Your task to perform on an android device: Check the news Image 0: 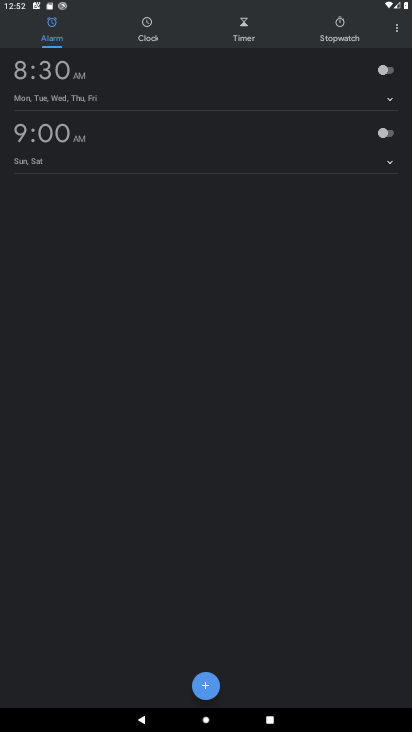
Step 0: press home button
Your task to perform on an android device: Check the news Image 1: 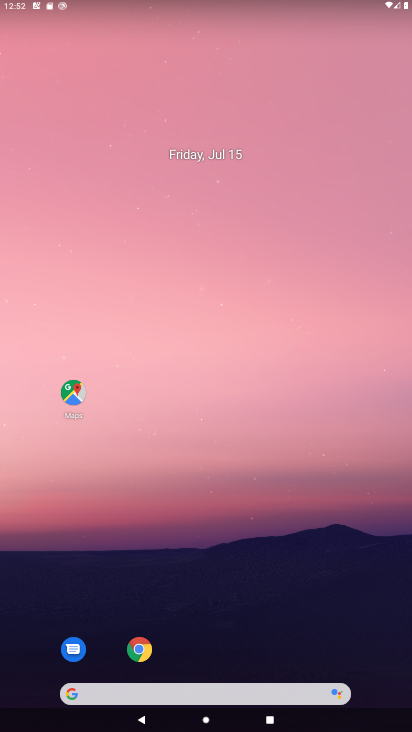
Step 1: drag from (249, 590) to (269, 458)
Your task to perform on an android device: Check the news Image 2: 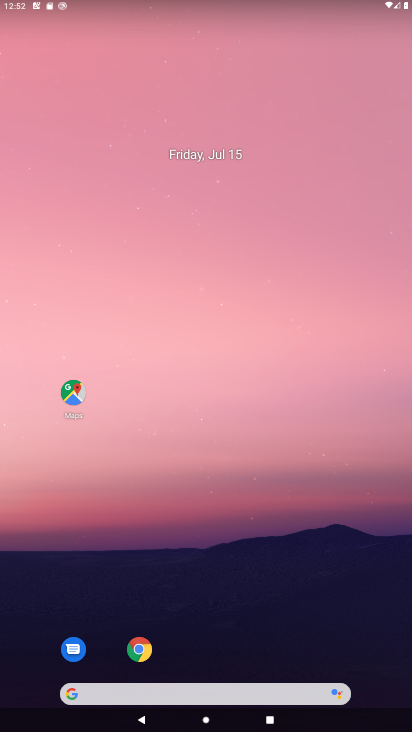
Step 2: drag from (207, 612) to (211, 198)
Your task to perform on an android device: Check the news Image 3: 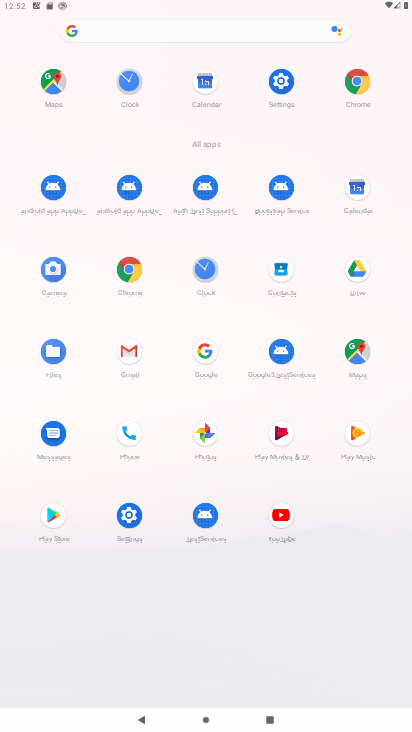
Step 3: click (355, 88)
Your task to perform on an android device: Check the news Image 4: 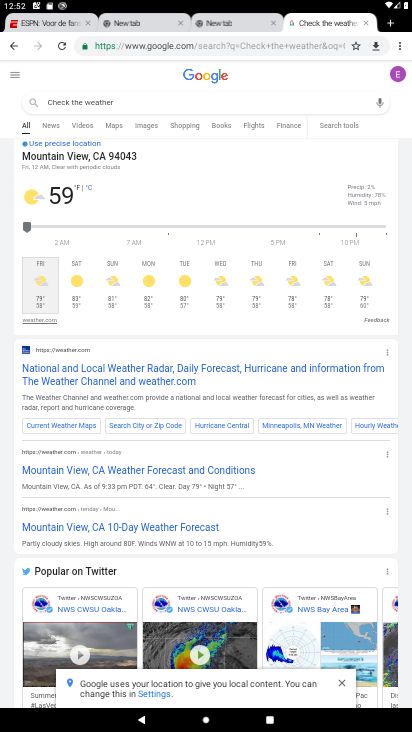
Step 4: click (367, 21)
Your task to perform on an android device: Check the news Image 5: 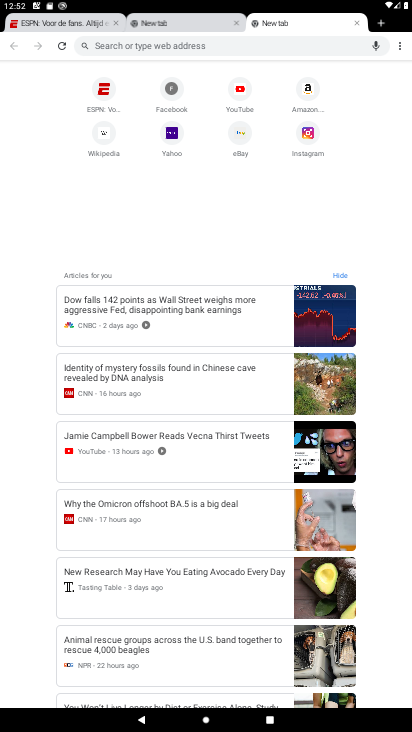
Step 5: click (130, 35)
Your task to perform on an android device: Check the news Image 6: 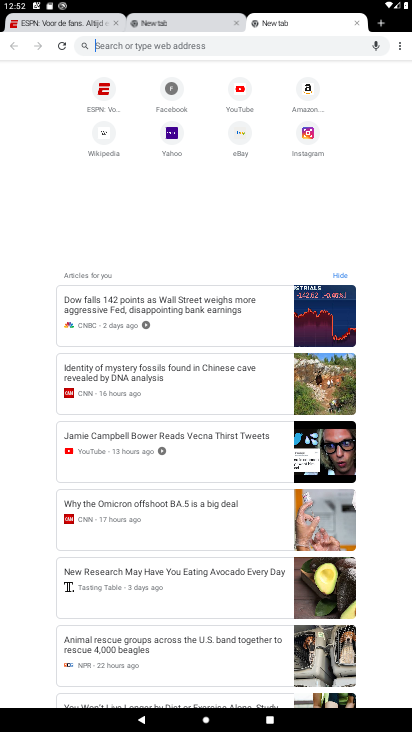
Step 6: type "Check the news "
Your task to perform on an android device: Check the news Image 7: 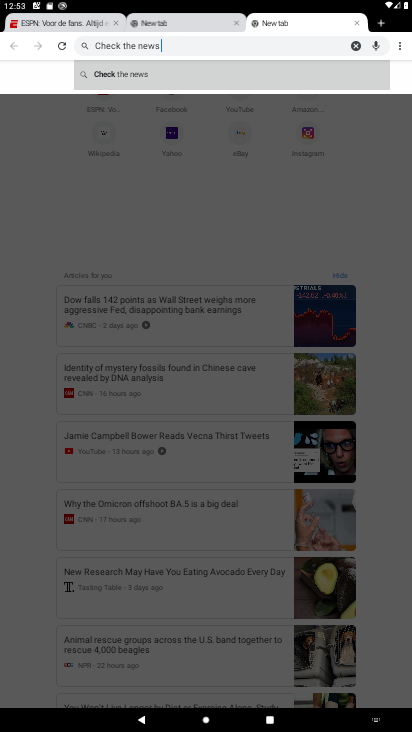
Step 7: click (210, 74)
Your task to perform on an android device: Check the news Image 8: 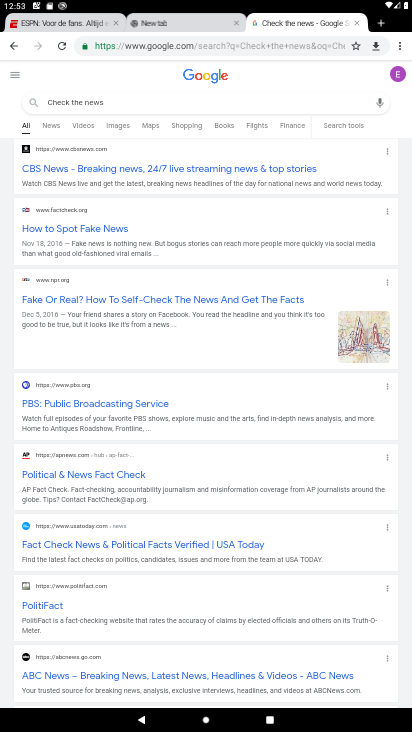
Step 8: task complete